Your task to perform on an android device: Open sound settings Image 0: 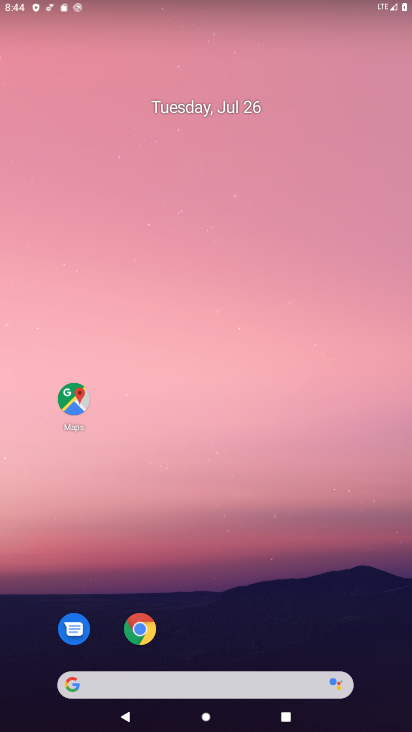
Step 0: drag from (218, 657) to (215, 139)
Your task to perform on an android device: Open sound settings Image 1: 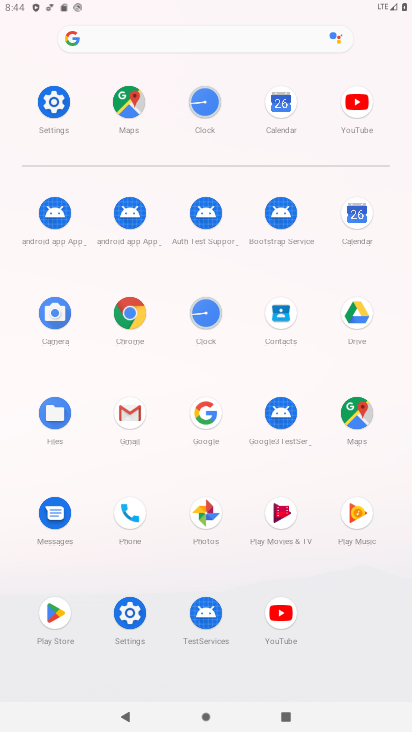
Step 1: click (56, 109)
Your task to perform on an android device: Open sound settings Image 2: 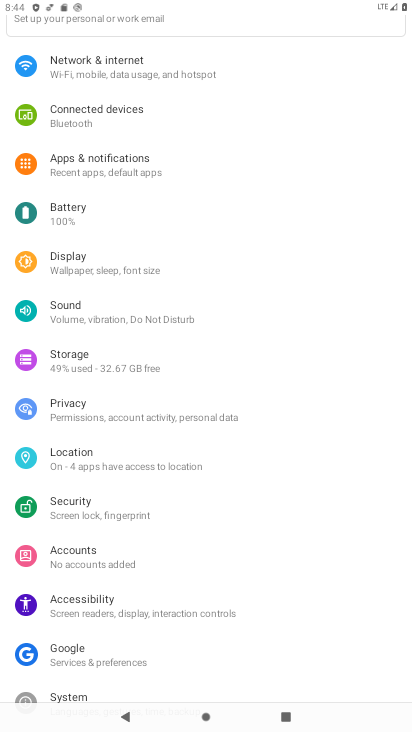
Step 2: click (89, 299)
Your task to perform on an android device: Open sound settings Image 3: 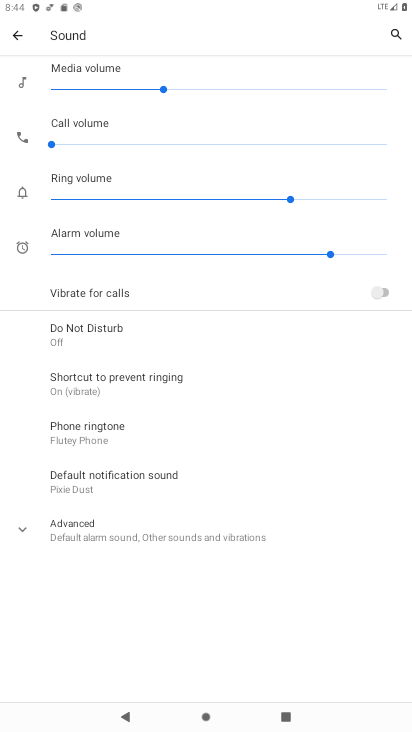
Step 3: click (120, 541)
Your task to perform on an android device: Open sound settings Image 4: 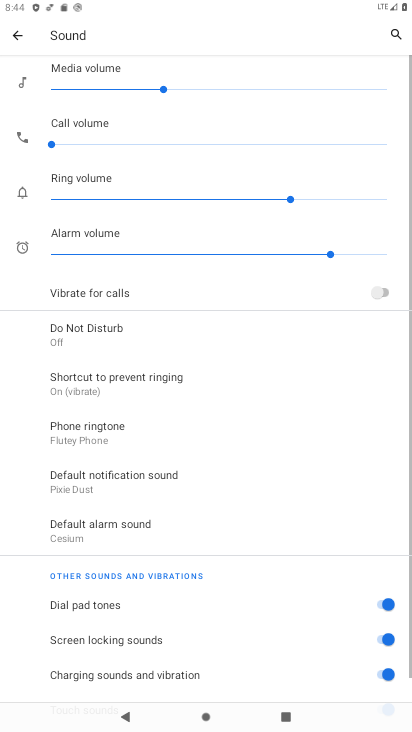
Step 4: task complete